Your task to perform on an android device: empty trash in the gmail app Image 0: 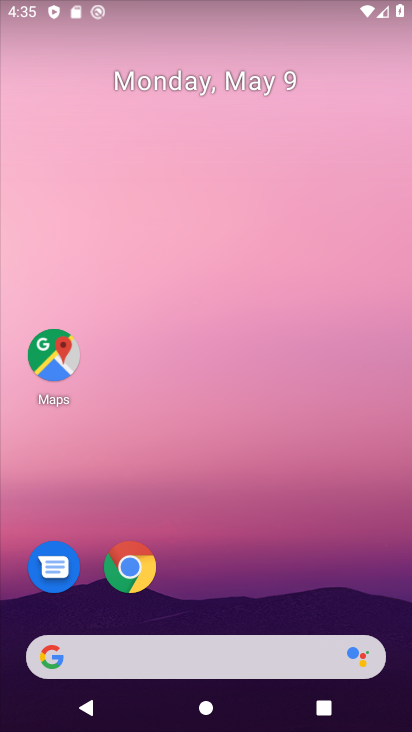
Step 0: drag from (234, 570) to (346, 35)
Your task to perform on an android device: empty trash in the gmail app Image 1: 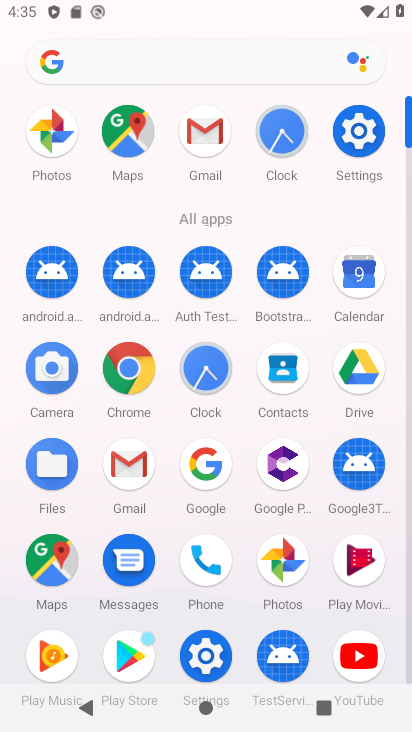
Step 1: drag from (223, 628) to (329, 182)
Your task to perform on an android device: empty trash in the gmail app Image 2: 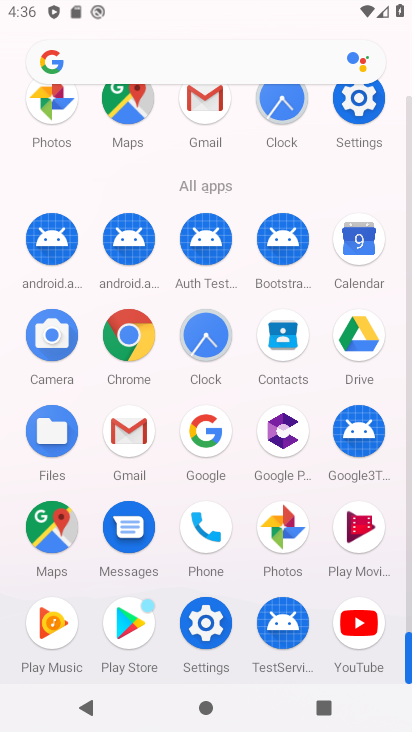
Step 2: drag from (254, 503) to (239, 155)
Your task to perform on an android device: empty trash in the gmail app Image 3: 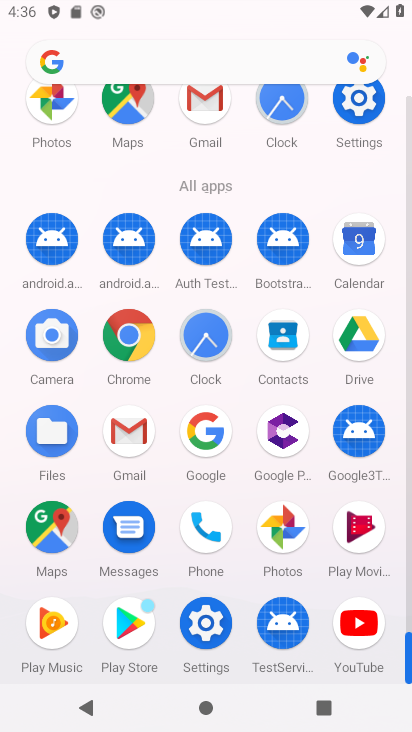
Step 3: click (124, 423)
Your task to perform on an android device: empty trash in the gmail app Image 4: 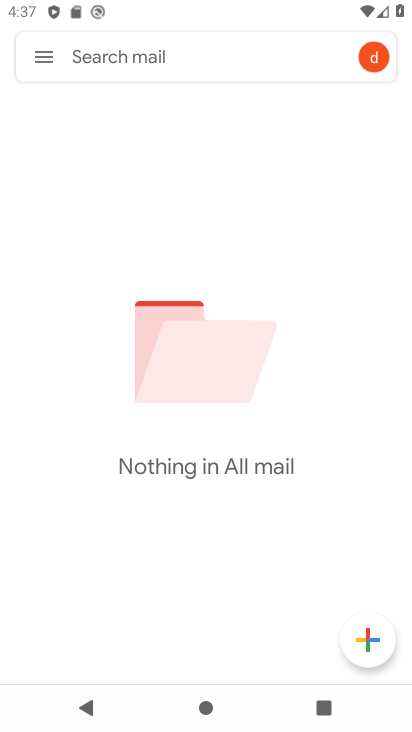
Step 4: click (37, 57)
Your task to perform on an android device: empty trash in the gmail app Image 5: 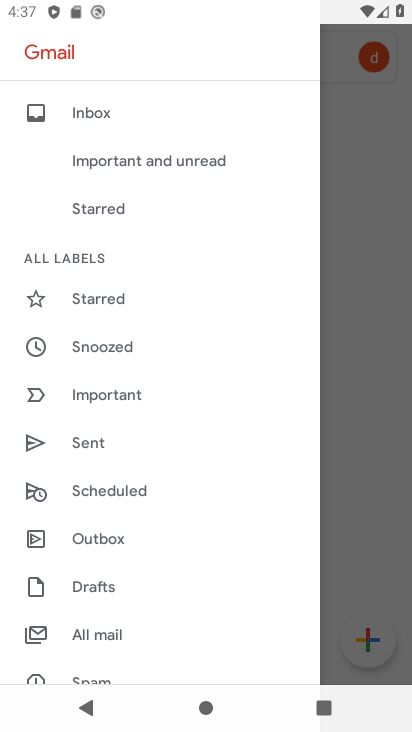
Step 5: drag from (191, 492) to (191, 0)
Your task to perform on an android device: empty trash in the gmail app Image 6: 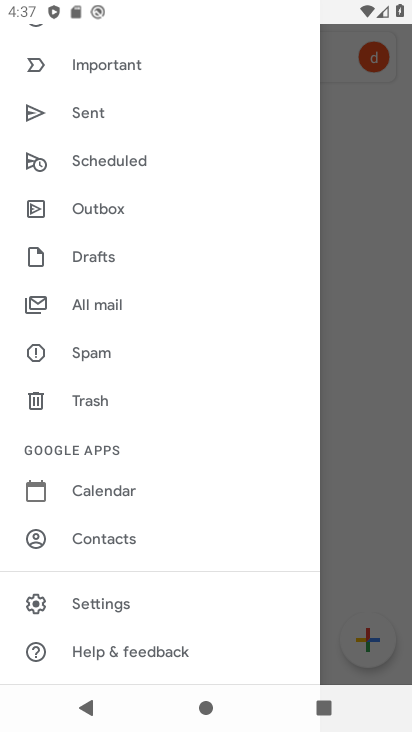
Step 6: click (125, 399)
Your task to perform on an android device: empty trash in the gmail app Image 7: 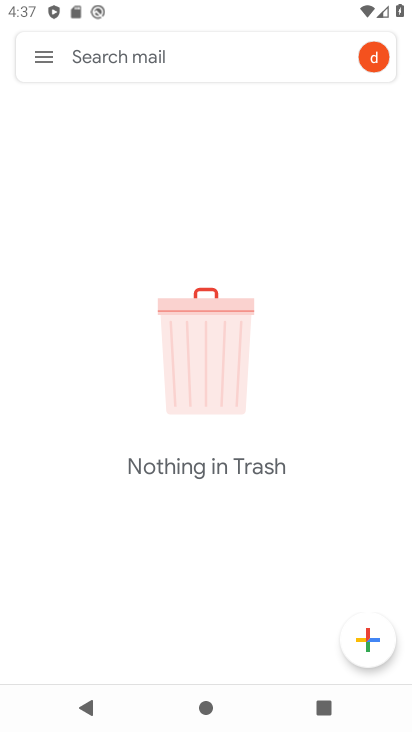
Step 7: task complete